Your task to perform on an android device: Clear the shopping cart on ebay. Image 0: 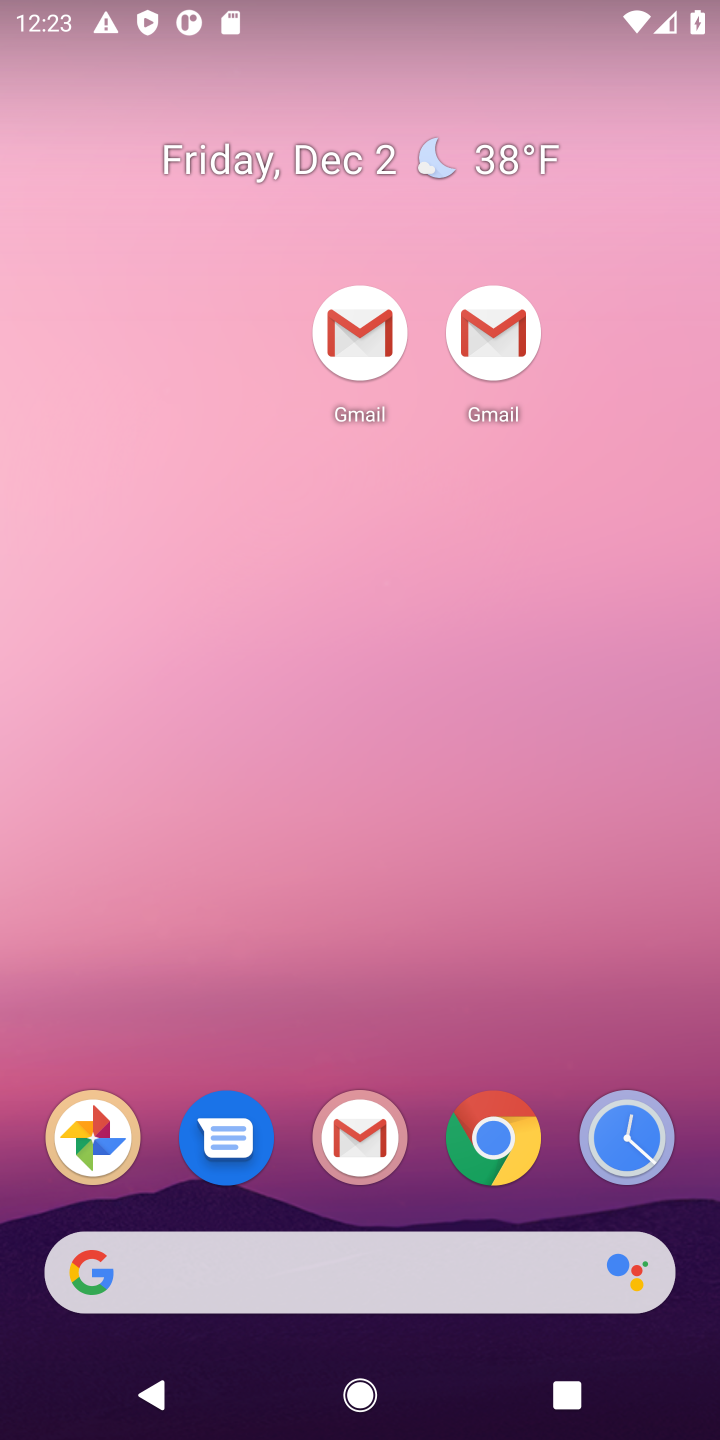
Step 0: drag from (399, 1187) to (492, 447)
Your task to perform on an android device: Clear the shopping cart on ebay. Image 1: 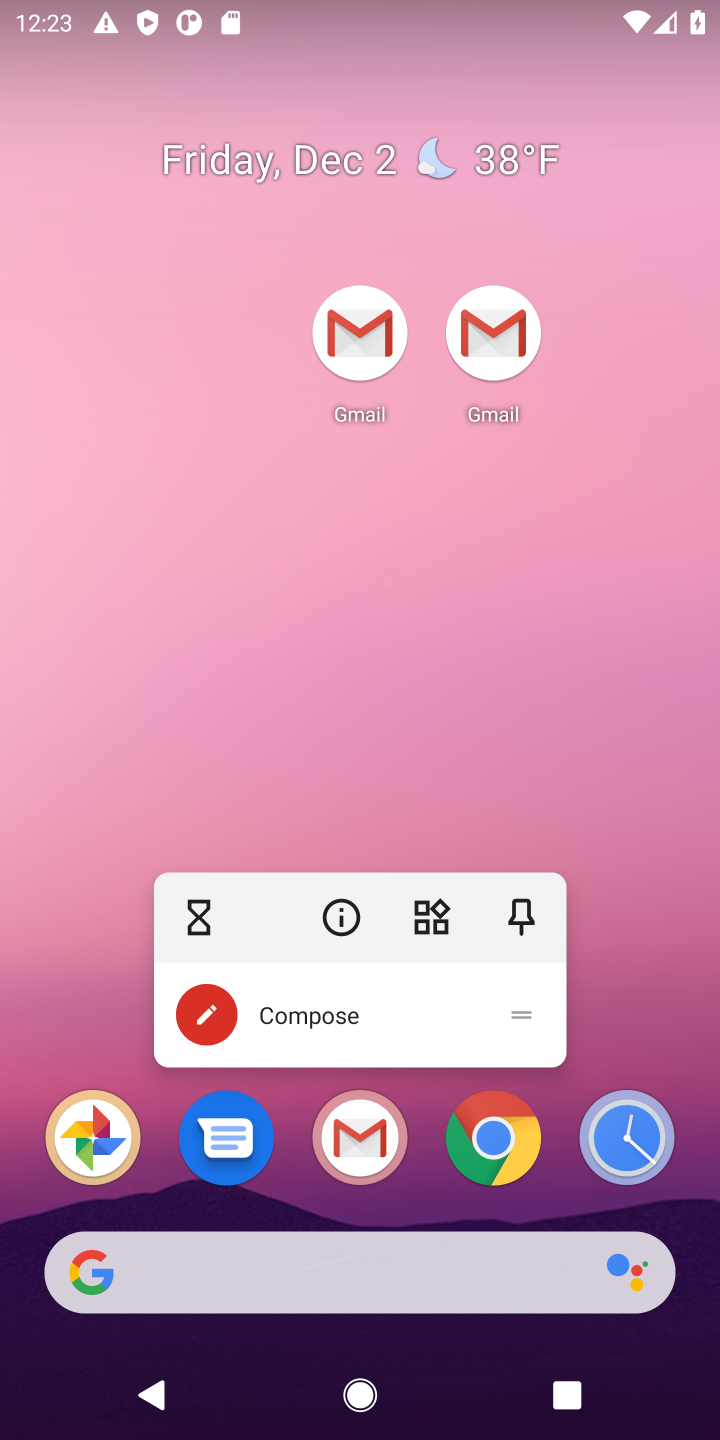
Step 1: click (492, 719)
Your task to perform on an android device: Clear the shopping cart on ebay. Image 2: 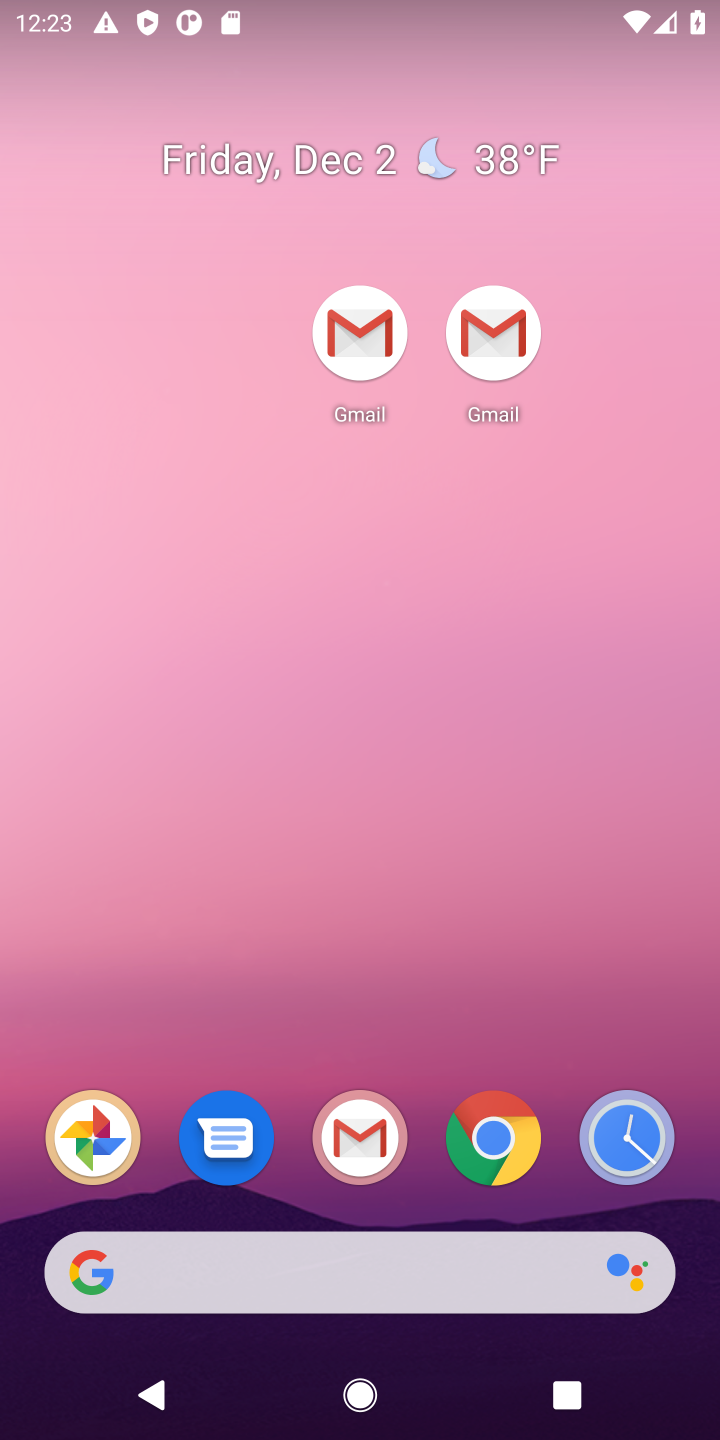
Step 2: drag from (394, 1090) to (459, 401)
Your task to perform on an android device: Clear the shopping cart on ebay. Image 3: 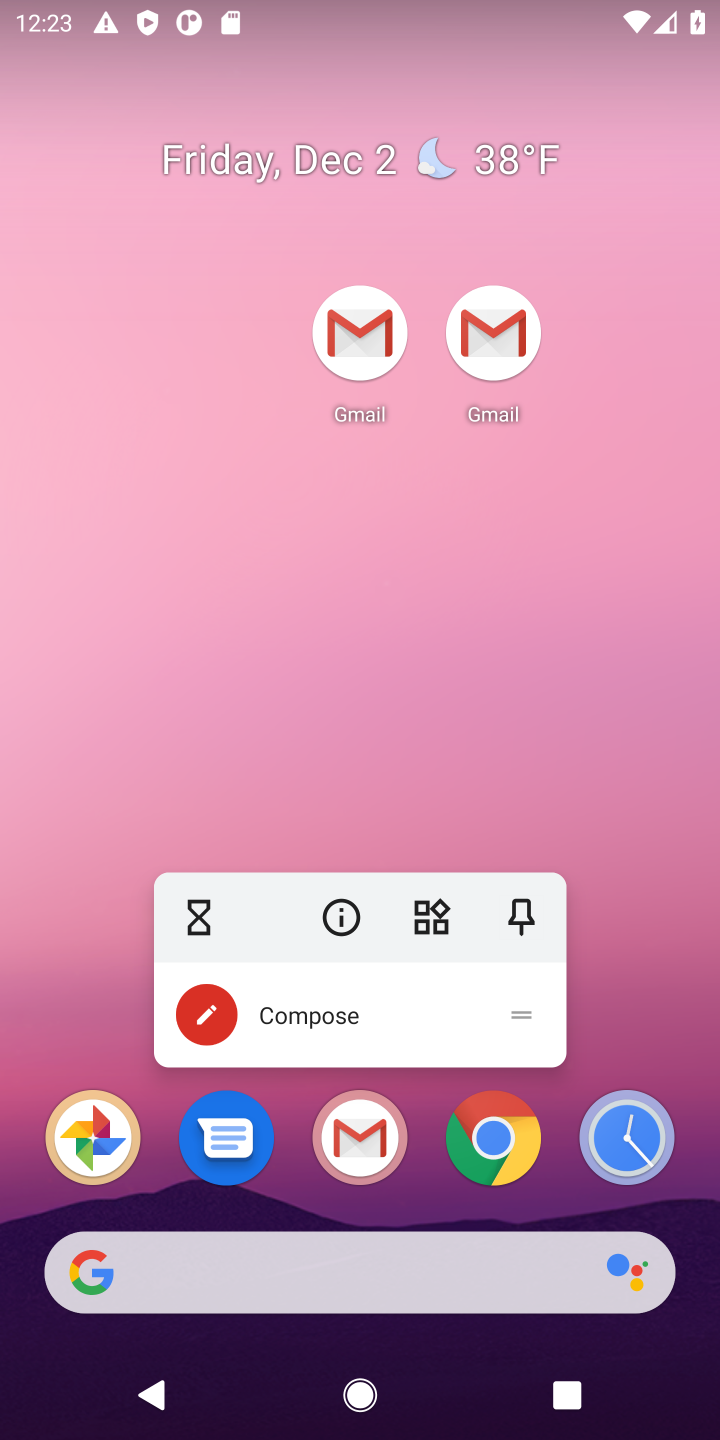
Step 3: click (630, 717)
Your task to perform on an android device: Clear the shopping cart on ebay. Image 4: 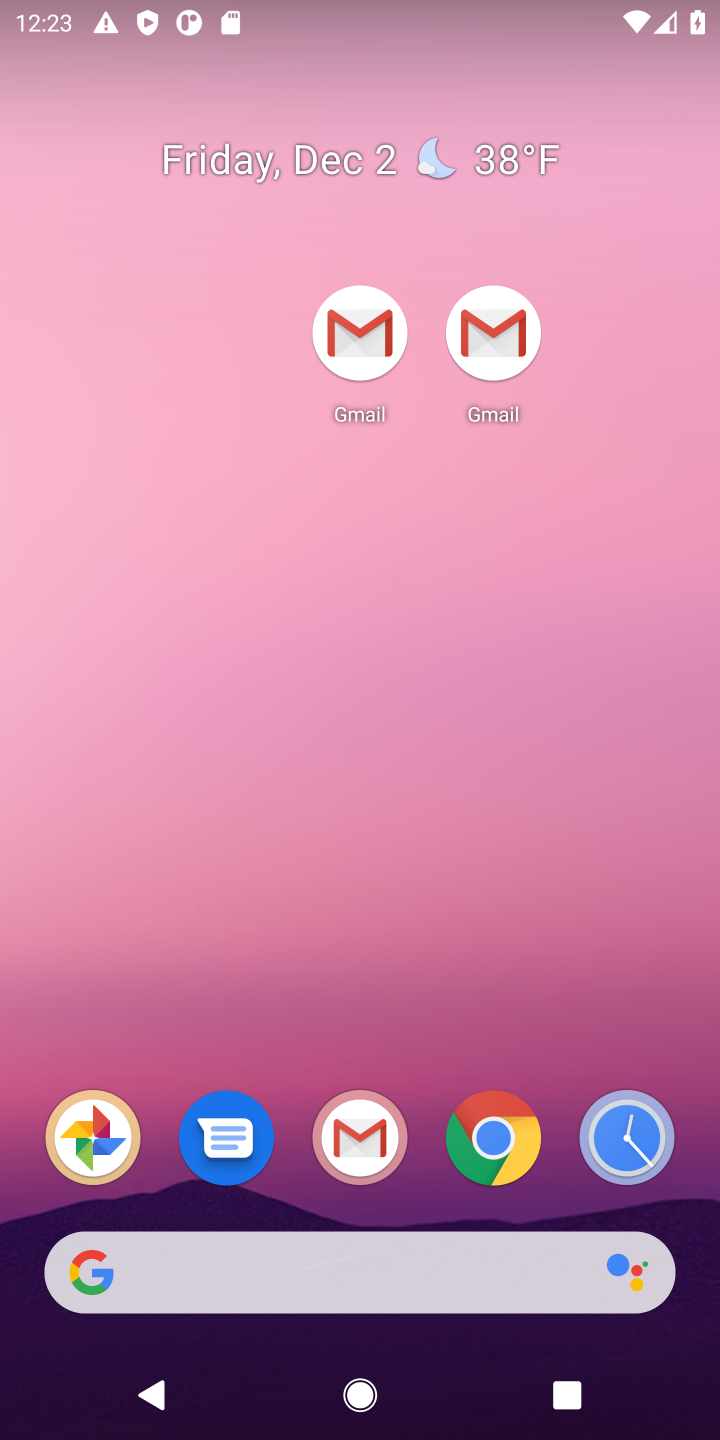
Step 4: drag from (413, 620) to (440, 68)
Your task to perform on an android device: Clear the shopping cart on ebay. Image 5: 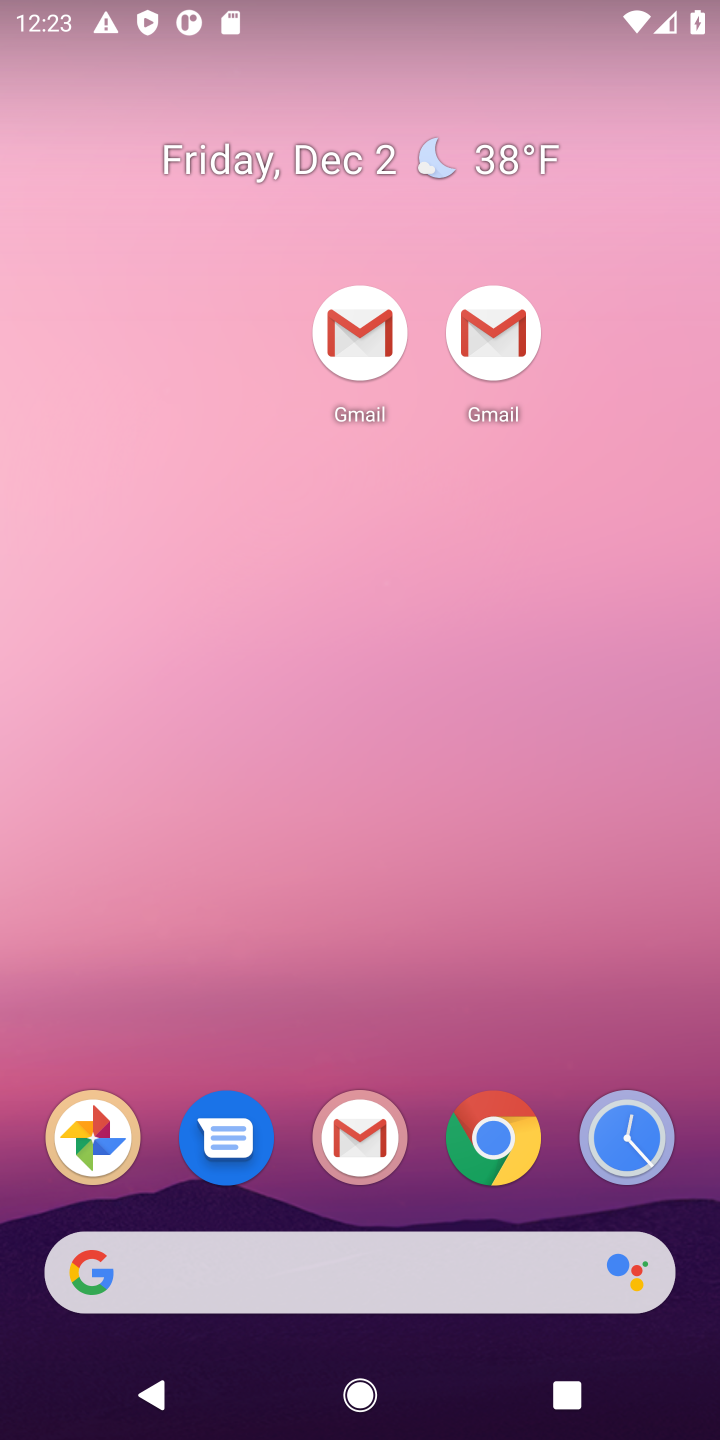
Step 5: drag from (422, 1183) to (475, 297)
Your task to perform on an android device: Clear the shopping cart on ebay. Image 6: 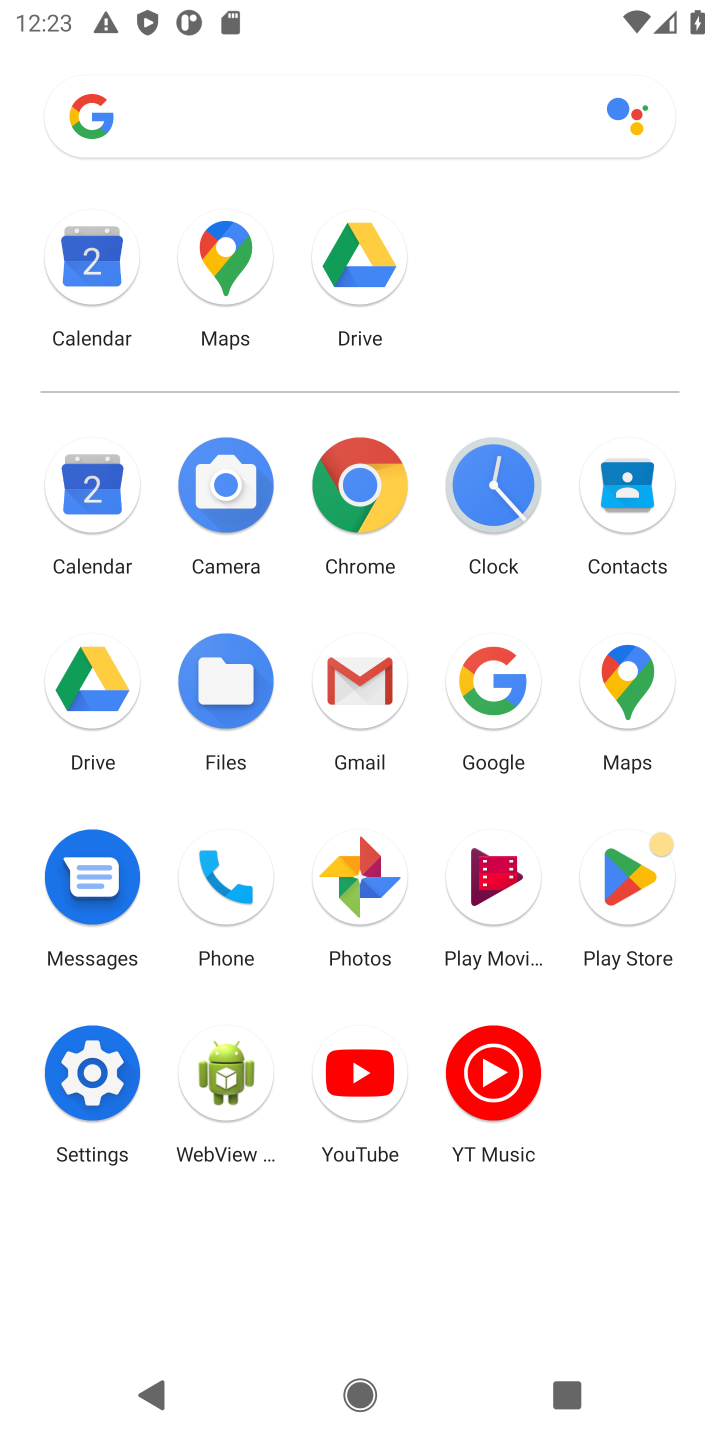
Step 6: click (503, 728)
Your task to perform on an android device: Clear the shopping cart on ebay. Image 7: 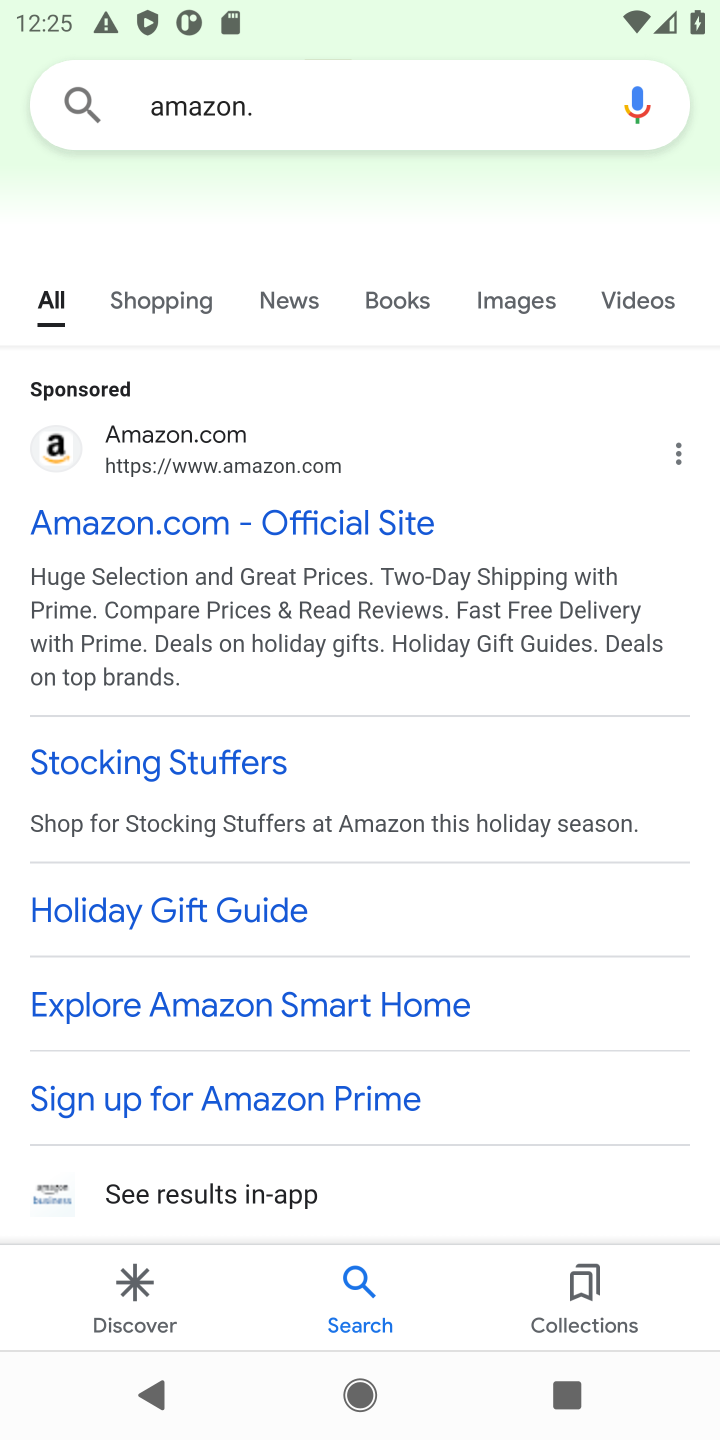
Step 7: click (348, 512)
Your task to perform on an android device: Clear the shopping cart on ebay. Image 8: 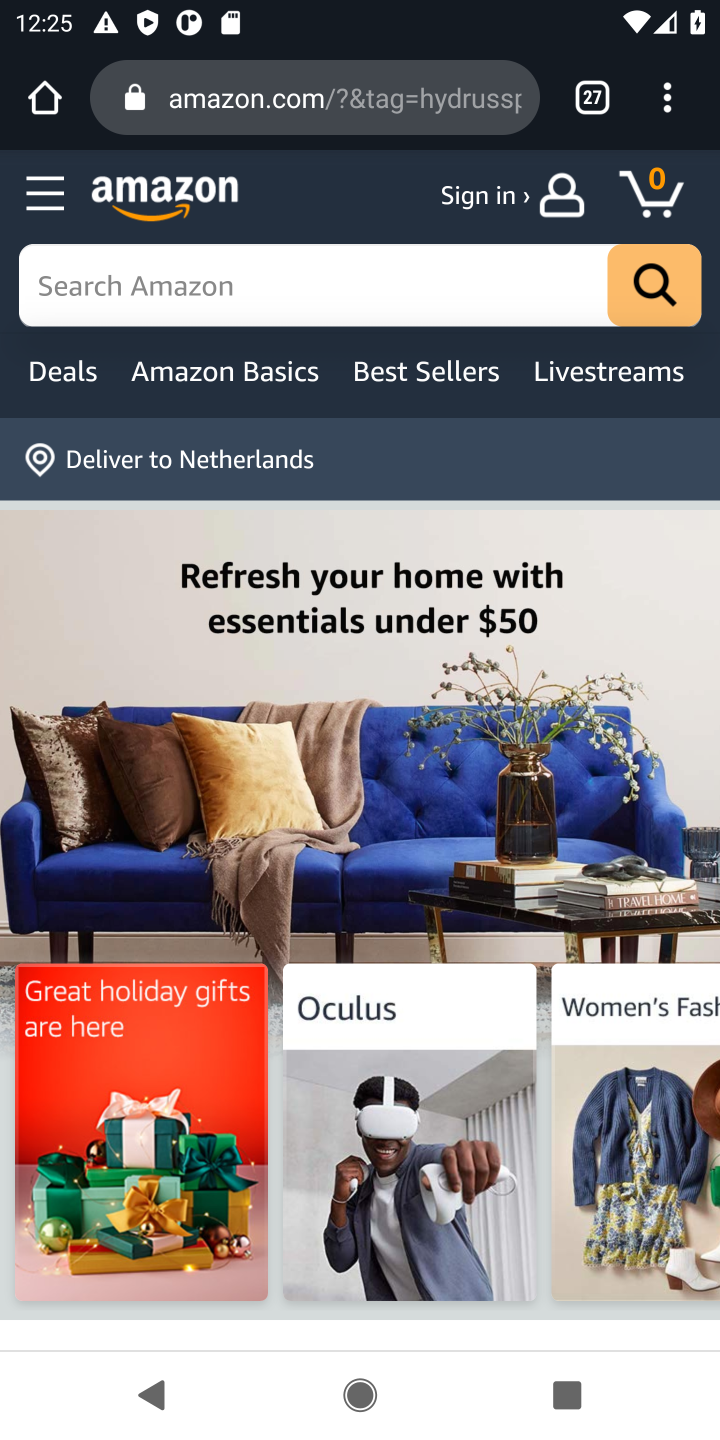
Step 8: click (673, 208)
Your task to perform on an android device: Clear the shopping cart on ebay. Image 9: 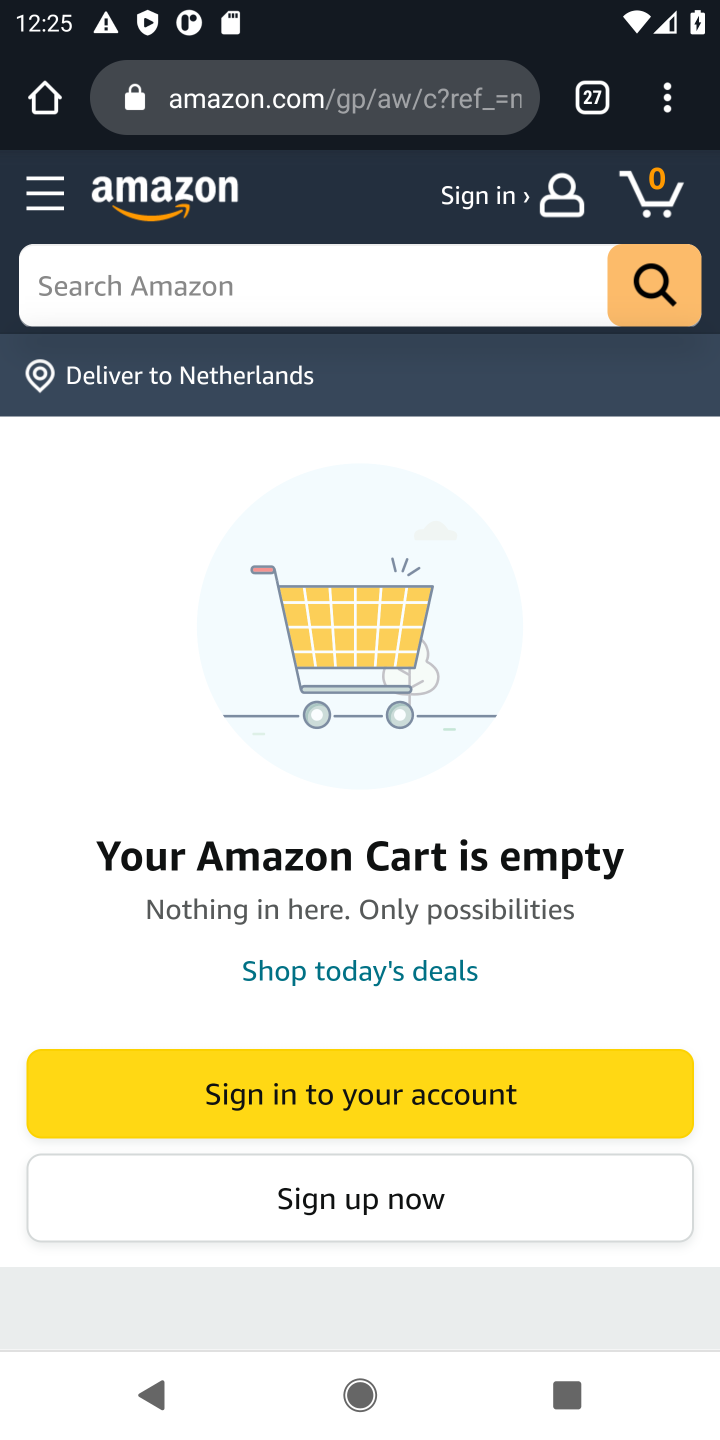
Step 9: task complete